Your task to perform on an android device: Clear the cart on ebay. Add "apple airpods pro" to the cart on ebay Image 0: 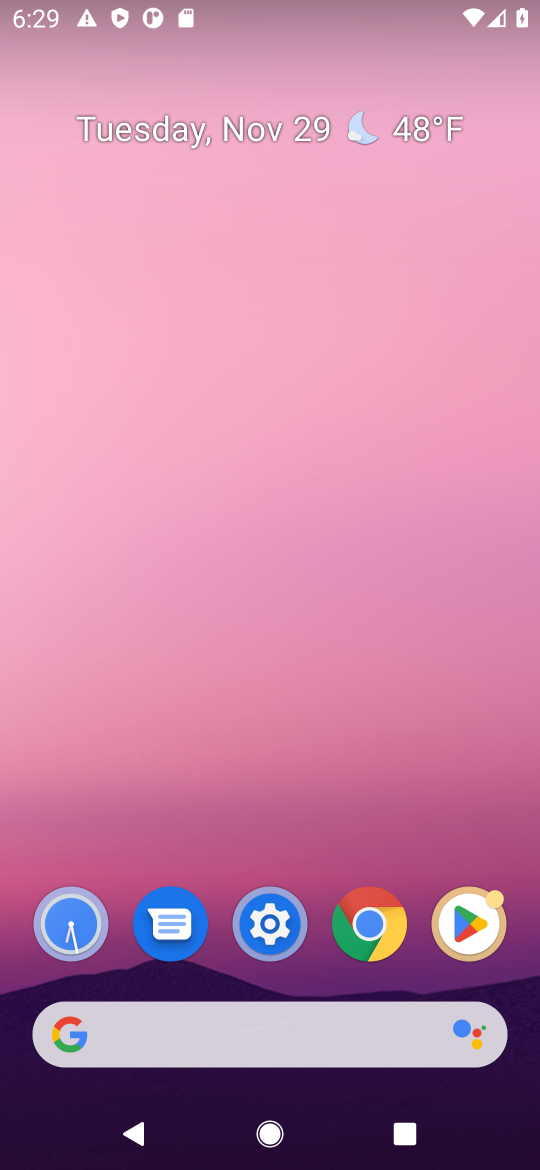
Step 0: click (284, 1059)
Your task to perform on an android device: Clear the cart on ebay. Add "apple airpods pro" to the cart on ebay Image 1: 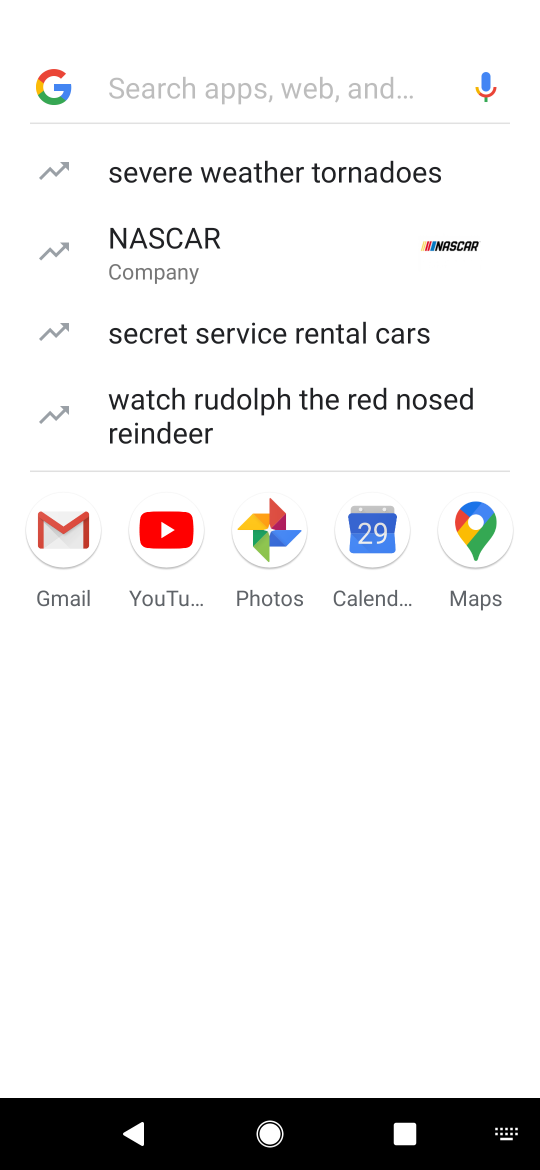
Step 1: type "ebay.com"
Your task to perform on an android device: Clear the cart on ebay. Add "apple airpods pro" to the cart on ebay Image 2: 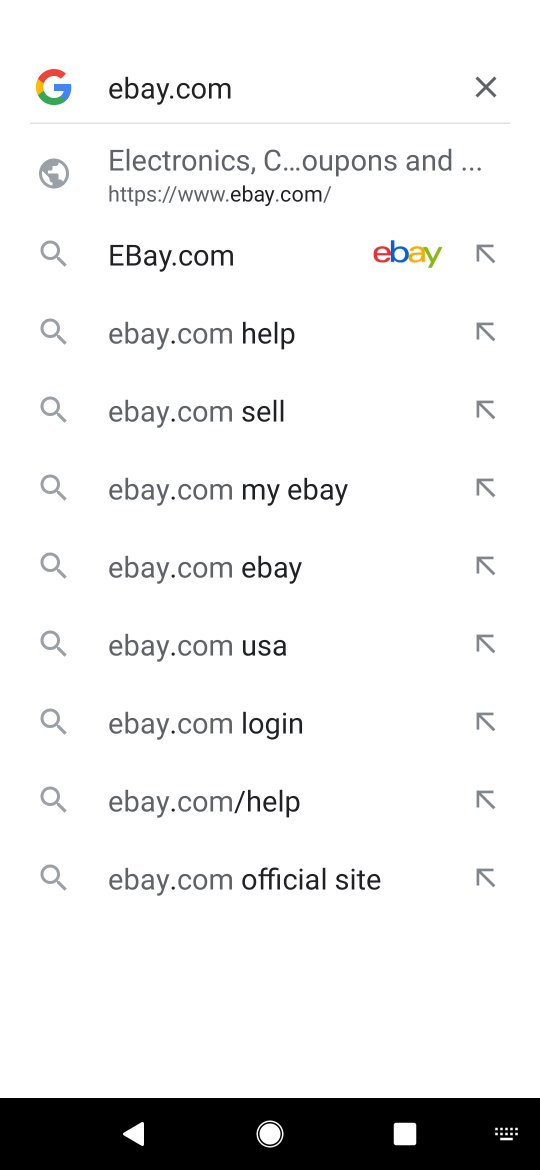
Step 2: click (280, 189)
Your task to perform on an android device: Clear the cart on ebay. Add "apple airpods pro" to the cart on ebay Image 3: 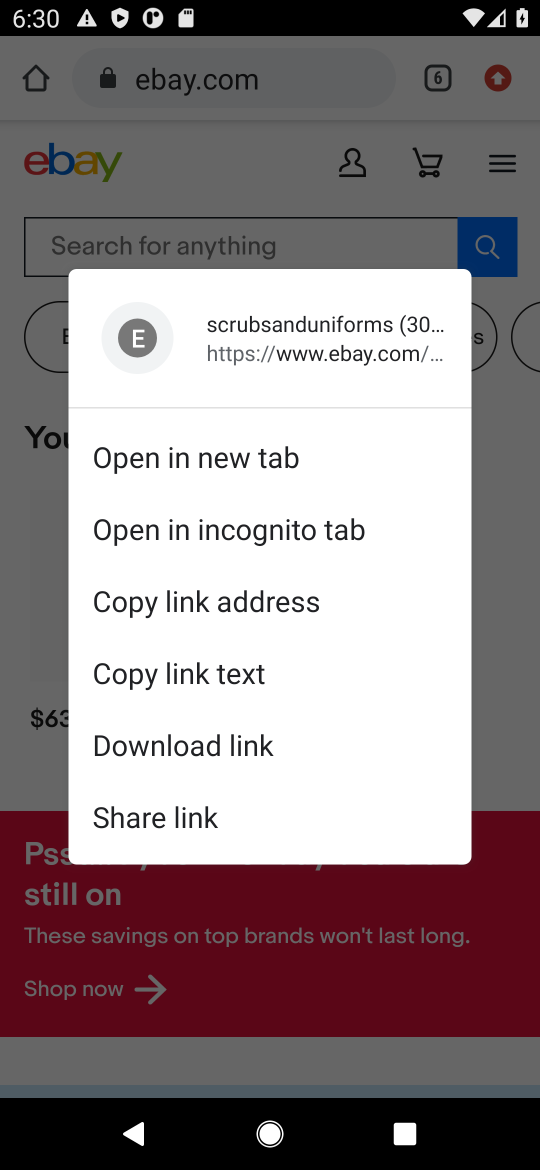
Step 3: click (280, 187)
Your task to perform on an android device: Clear the cart on ebay. Add "apple airpods pro" to the cart on ebay Image 4: 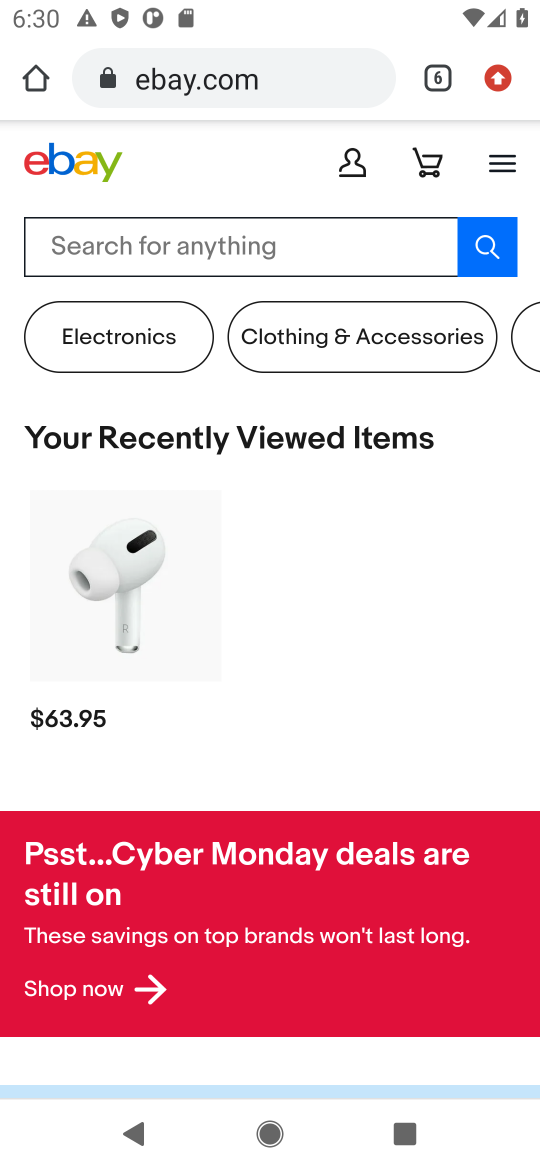
Step 4: task complete